Your task to perform on an android device: Show me recent news Image 0: 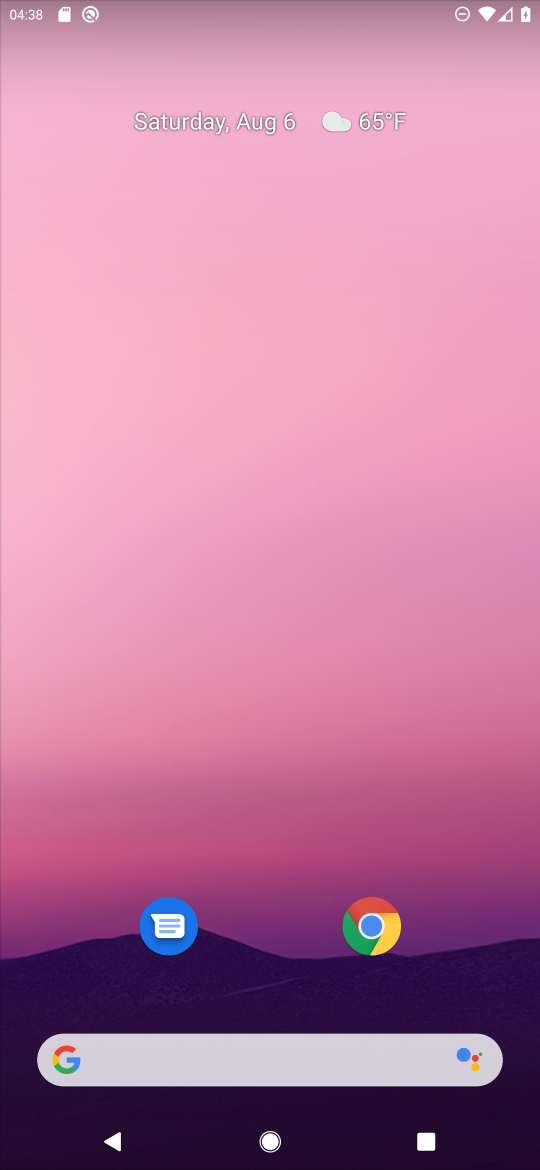
Step 0: drag from (292, 959) to (292, 416)
Your task to perform on an android device: Show me recent news Image 1: 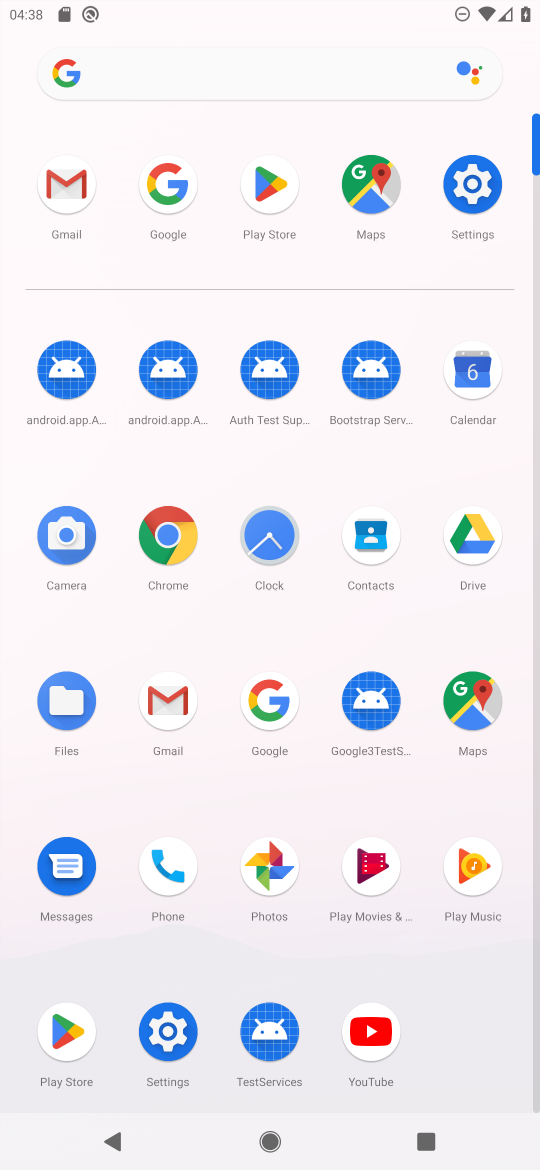
Step 1: click (277, 671)
Your task to perform on an android device: Show me recent news Image 2: 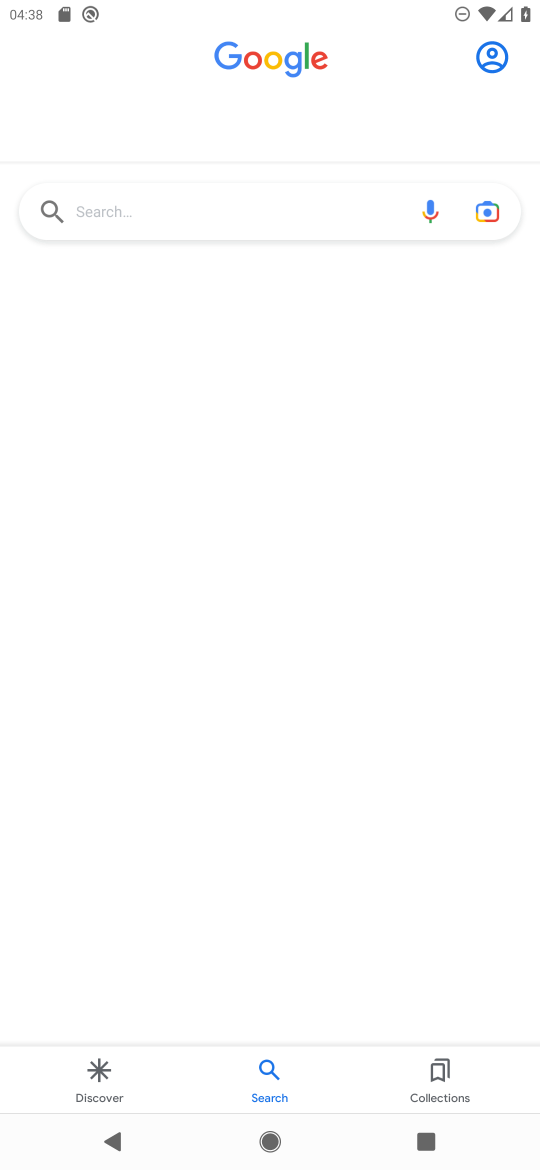
Step 2: click (127, 207)
Your task to perform on an android device: Show me recent news Image 3: 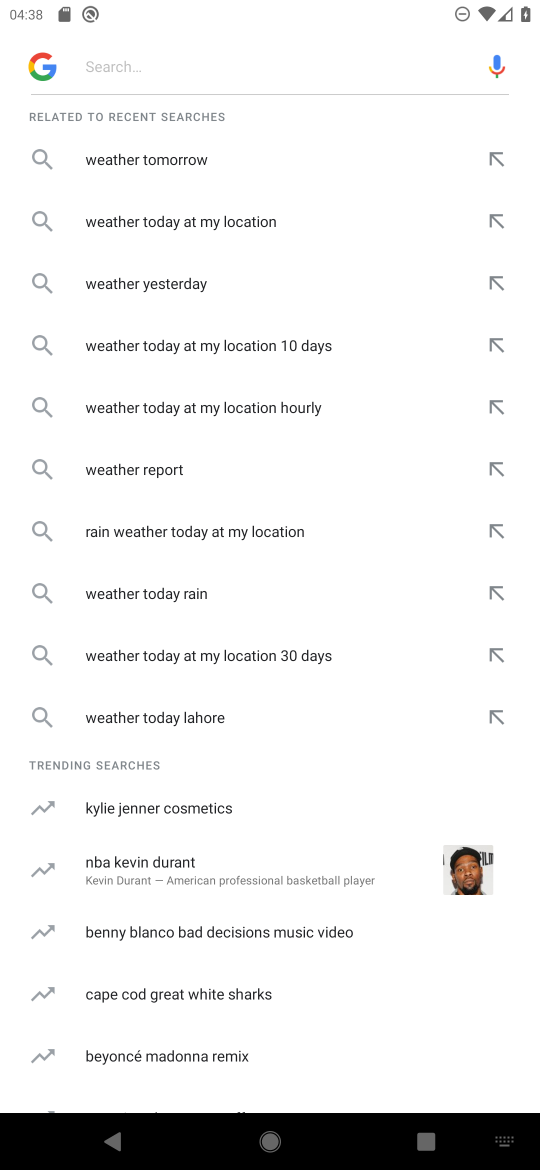
Step 3: type "news"
Your task to perform on an android device: Show me recent news Image 4: 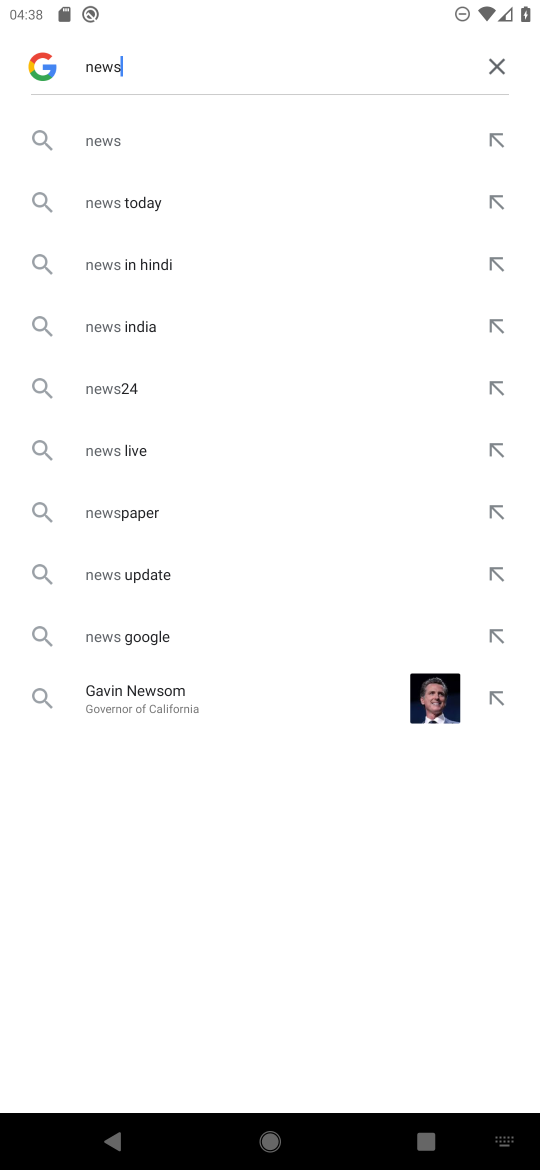
Step 4: click (112, 127)
Your task to perform on an android device: Show me recent news Image 5: 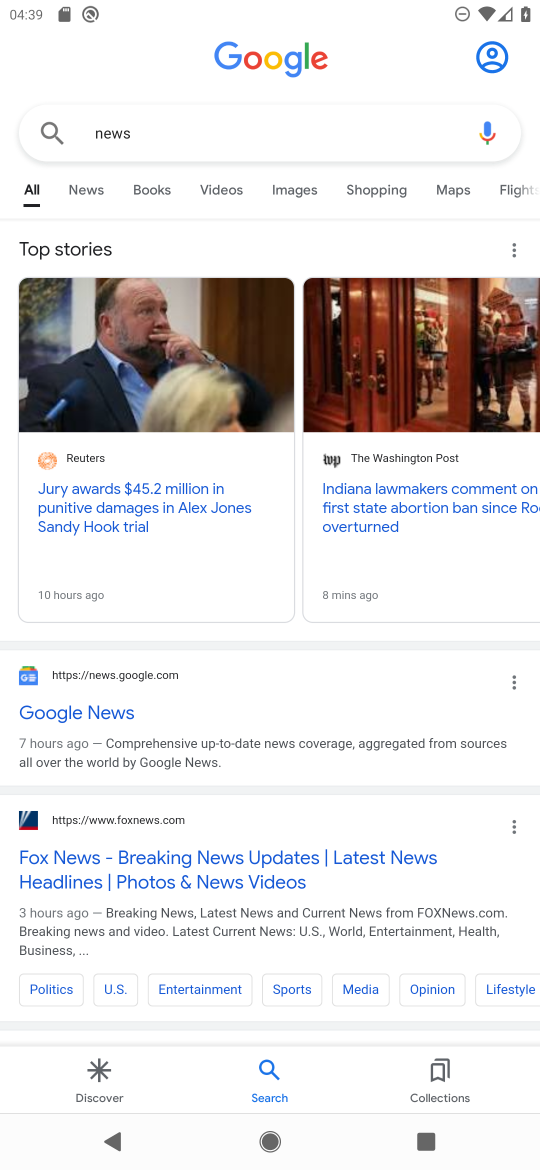
Step 5: click (89, 188)
Your task to perform on an android device: Show me recent news Image 6: 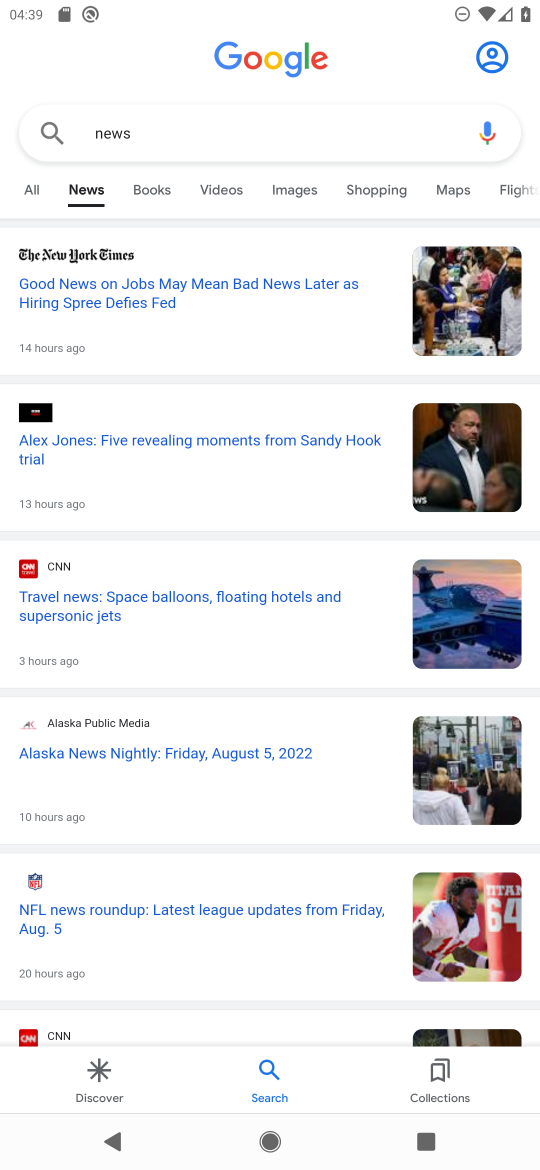
Step 6: task complete